Your task to perform on an android device: Is it going to rain this weekend? Image 0: 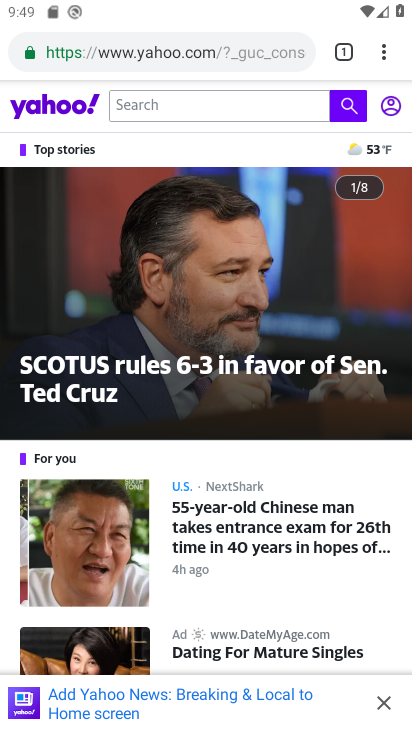
Step 0: click (186, 46)
Your task to perform on an android device: Is it going to rain this weekend? Image 1: 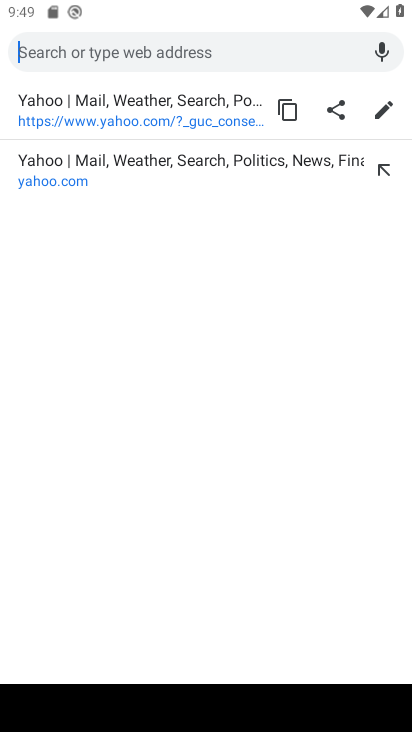
Step 1: type "Is it going to rain this weekend?"
Your task to perform on an android device: Is it going to rain this weekend? Image 2: 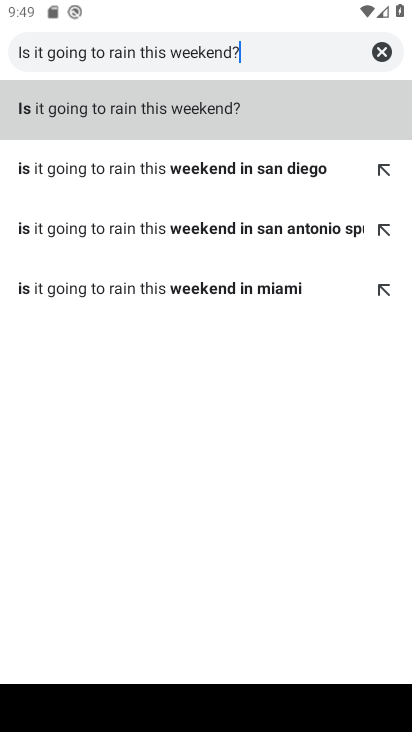
Step 2: click (213, 104)
Your task to perform on an android device: Is it going to rain this weekend? Image 3: 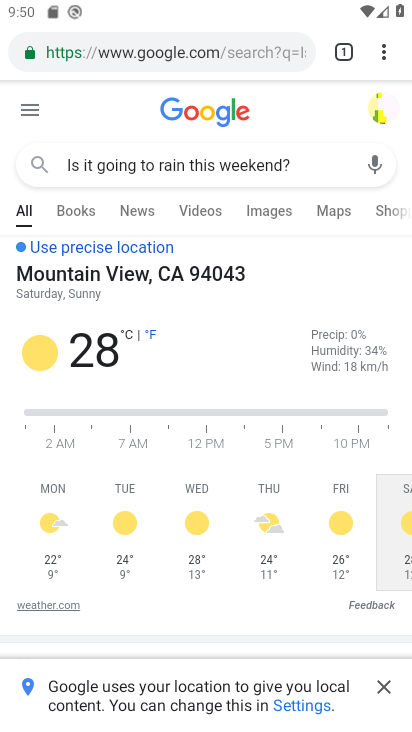
Step 3: task complete